Your task to perform on an android device: open app "McDonald's" (install if not already installed) Image 0: 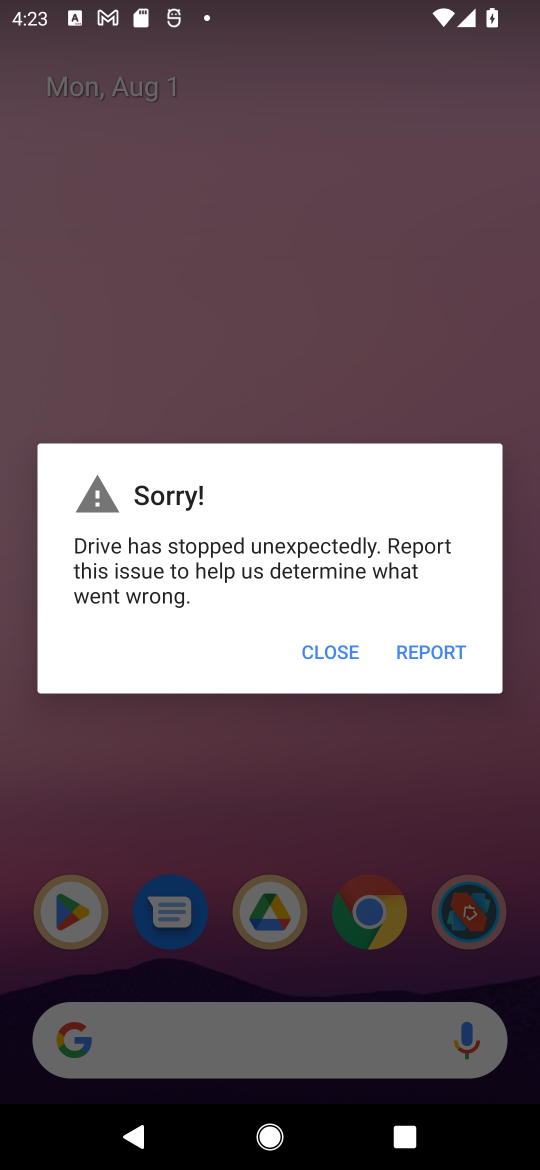
Step 0: press home button
Your task to perform on an android device: open app "McDonald's" (install if not already installed) Image 1: 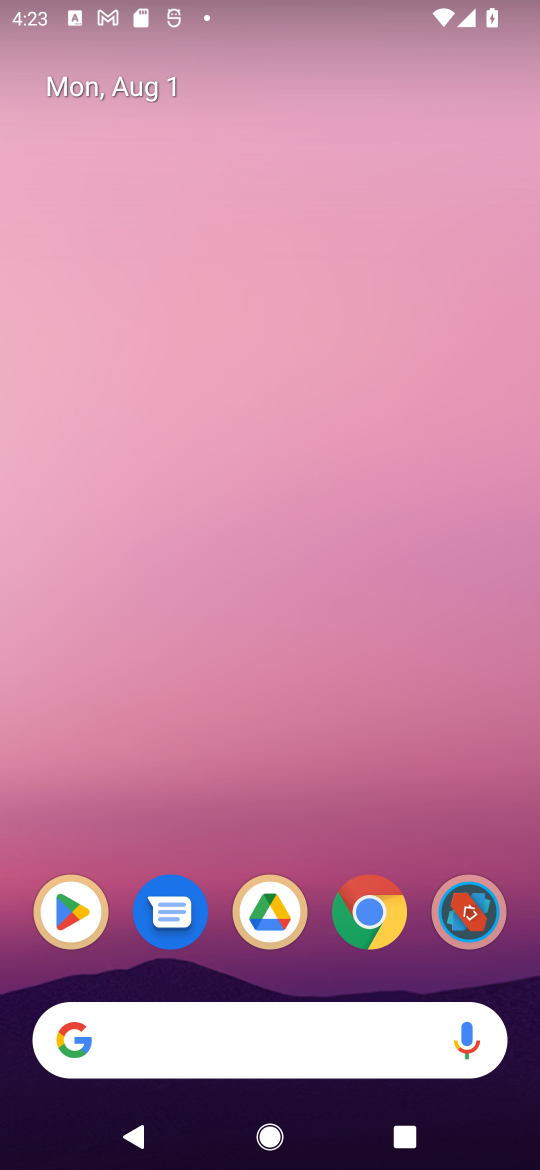
Step 1: click (46, 912)
Your task to perform on an android device: open app "McDonald's" (install if not already installed) Image 2: 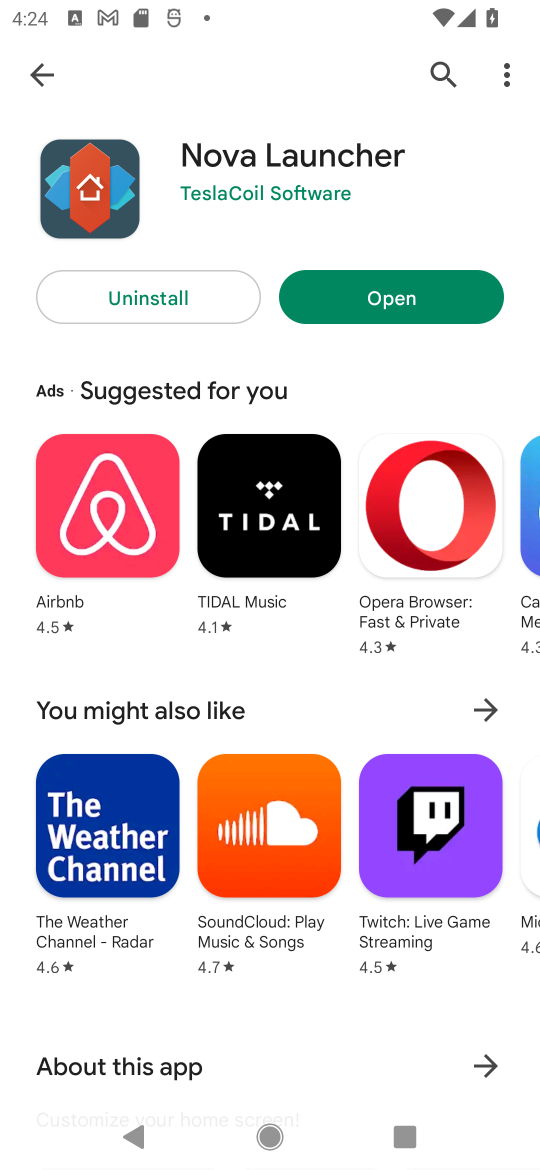
Step 2: click (437, 86)
Your task to perform on an android device: open app "McDonald's" (install if not already installed) Image 3: 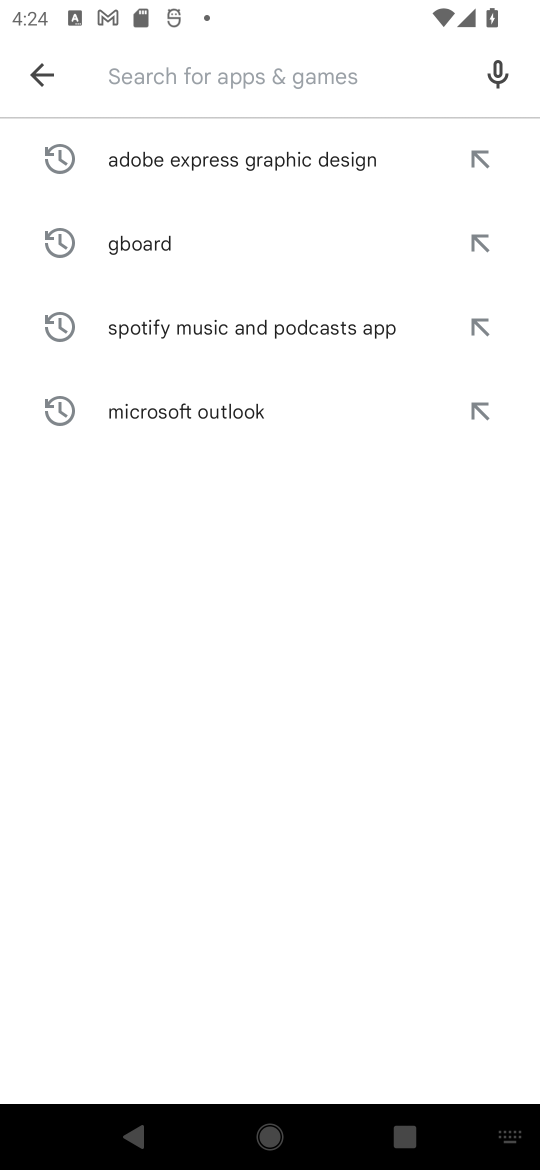
Step 3: type "McDonald's"
Your task to perform on an android device: open app "McDonald's" (install if not already installed) Image 4: 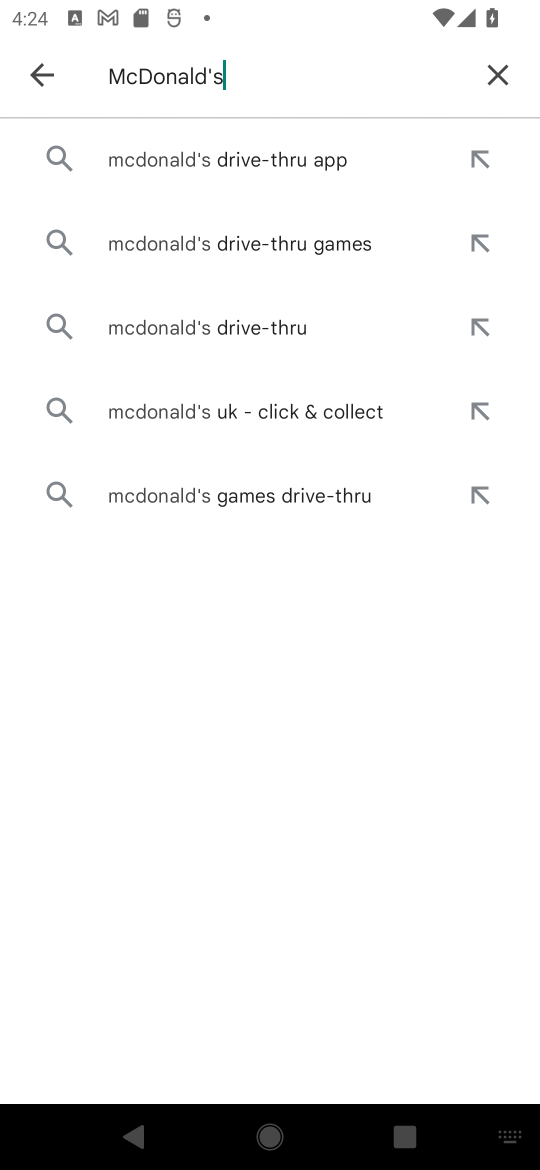
Step 4: click (136, 165)
Your task to perform on an android device: open app "McDonald's" (install if not already installed) Image 5: 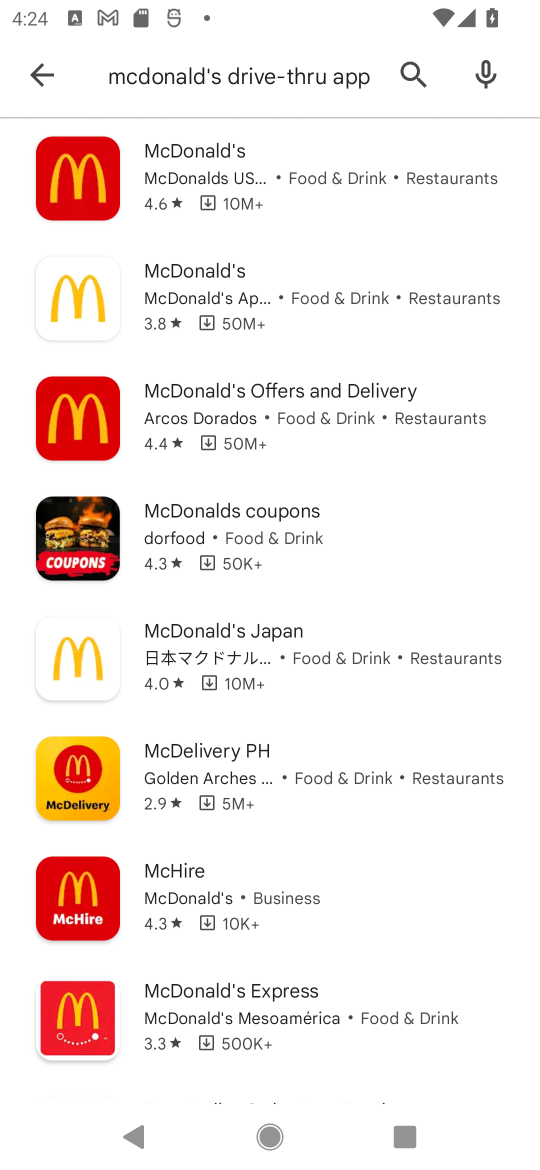
Step 5: click (136, 165)
Your task to perform on an android device: open app "McDonald's" (install if not already installed) Image 6: 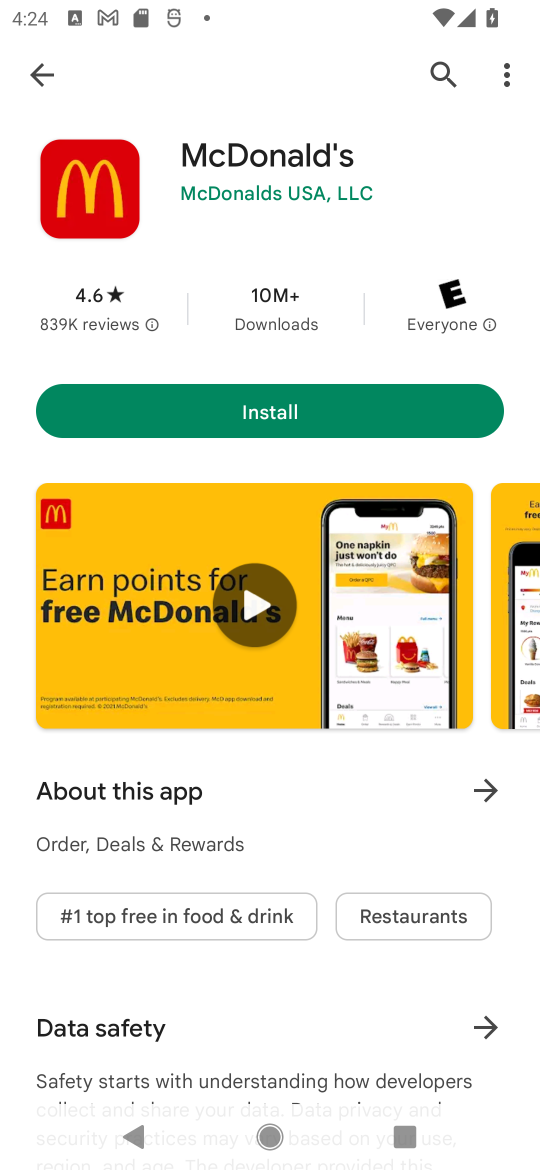
Step 6: click (198, 426)
Your task to perform on an android device: open app "McDonald's" (install if not already installed) Image 7: 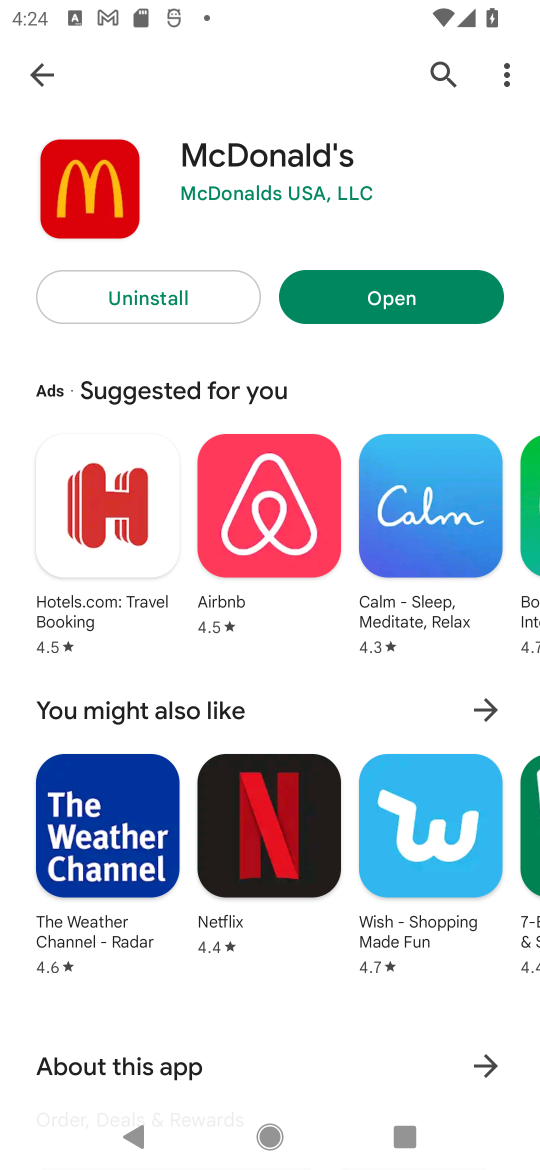
Step 7: click (361, 309)
Your task to perform on an android device: open app "McDonald's" (install if not already installed) Image 8: 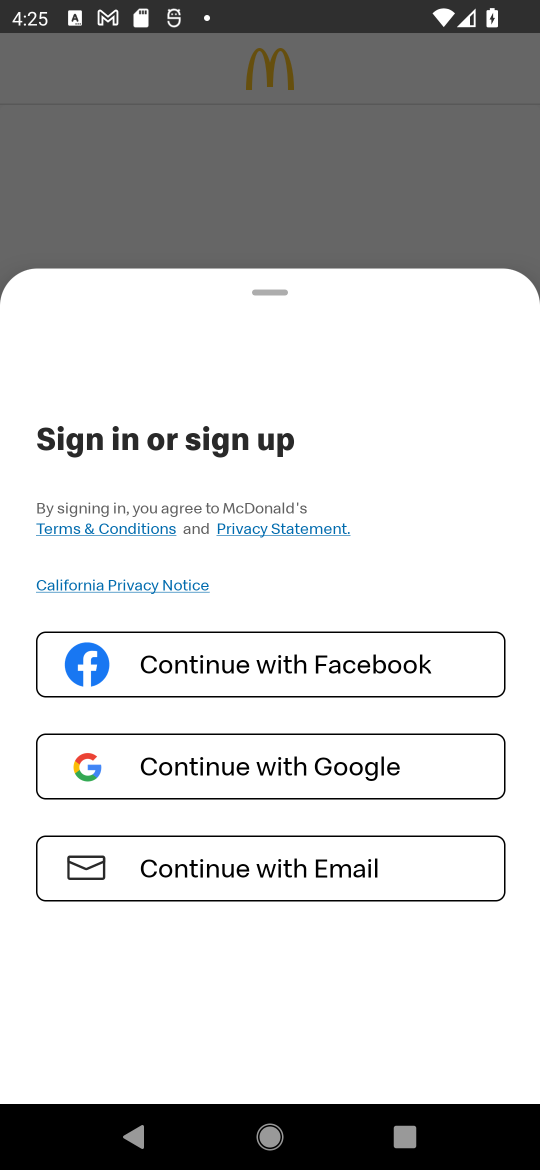
Step 8: task complete